Your task to perform on an android device: open app "Microsoft Outlook" (install if not already installed) and go to login screen Image 0: 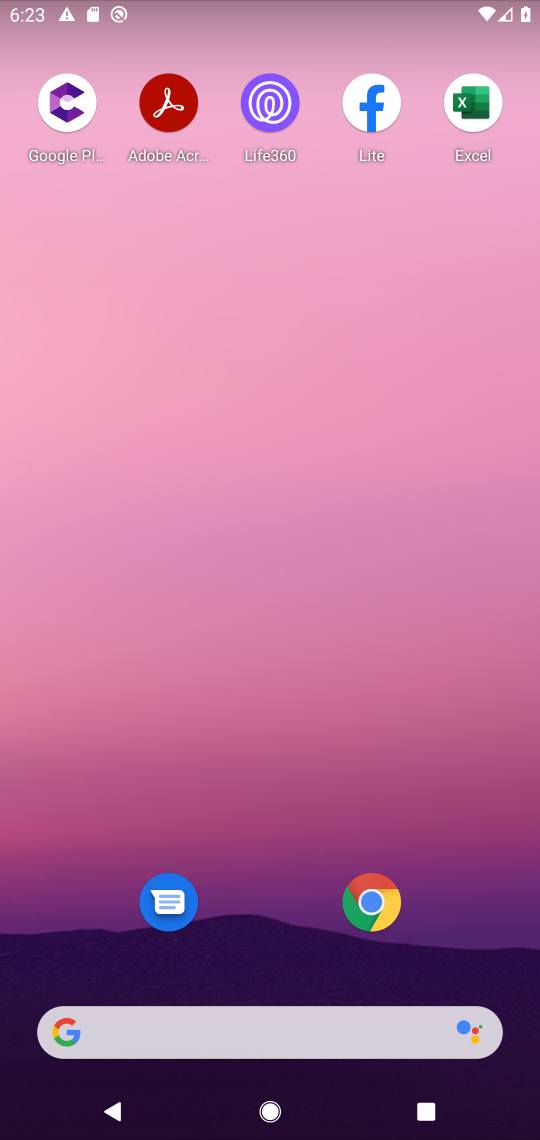
Step 0: drag from (252, 847) to (534, 1088)
Your task to perform on an android device: open app "Microsoft Outlook" (install if not already installed) and go to login screen Image 1: 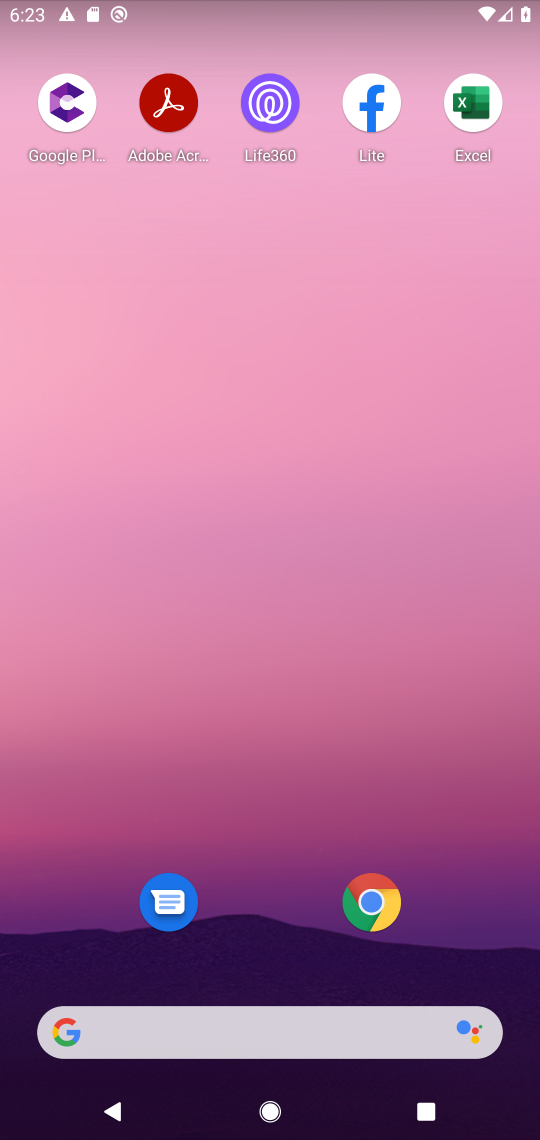
Step 1: drag from (211, 112) to (211, 49)
Your task to perform on an android device: open app "Microsoft Outlook" (install if not already installed) and go to login screen Image 2: 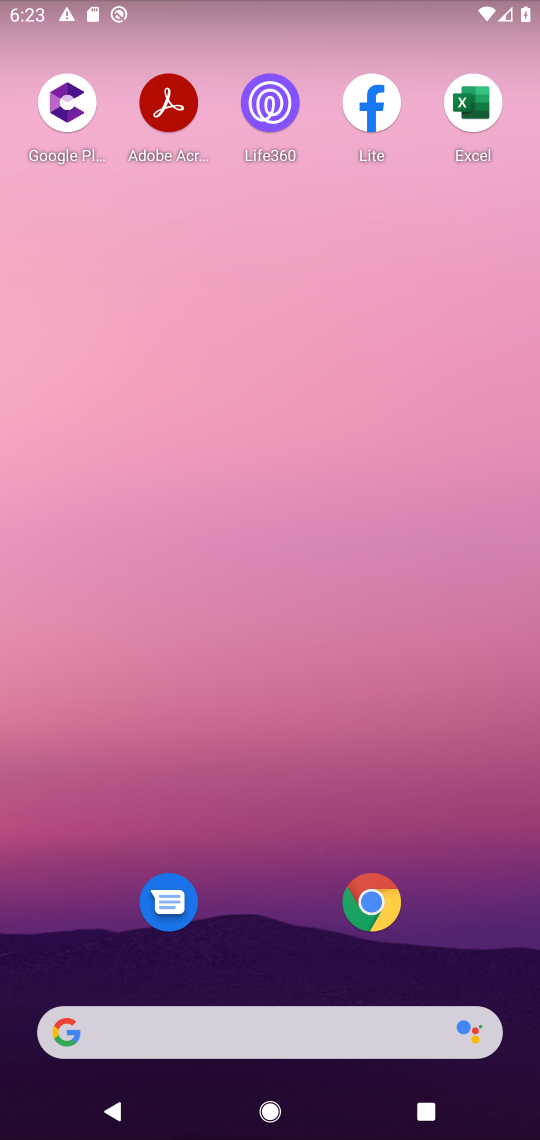
Step 2: drag from (189, 159) to (109, 14)
Your task to perform on an android device: open app "Microsoft Outlook" (install if not already installed) and go to login screen Image 3: 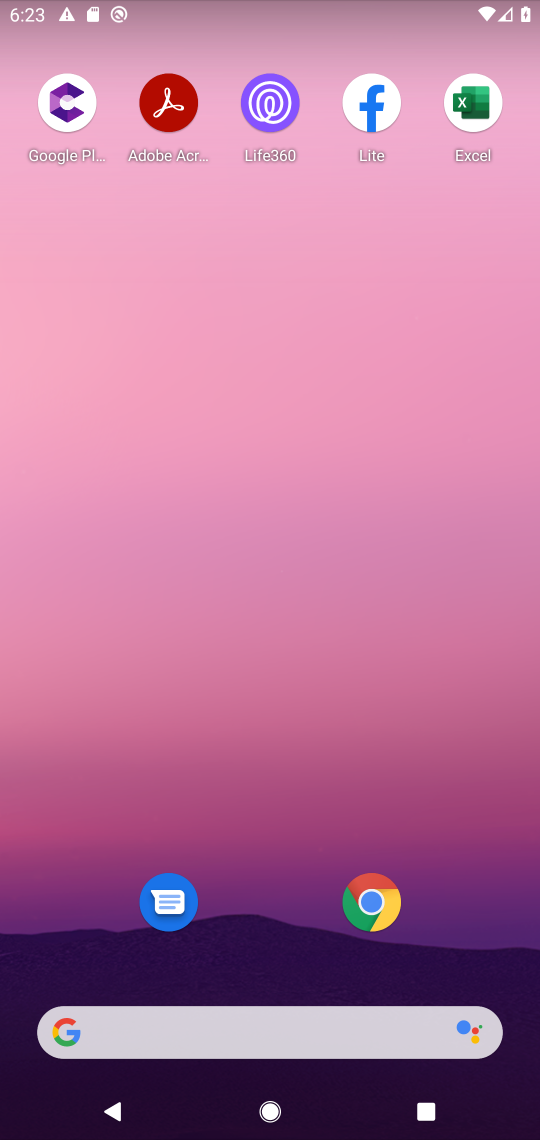
Step 3: drag from (281, 884) to (237, 45)
Your task to perform on an android device: open app "Microsoft Outlook" (install if not already installed) and go to login screen Image 4: 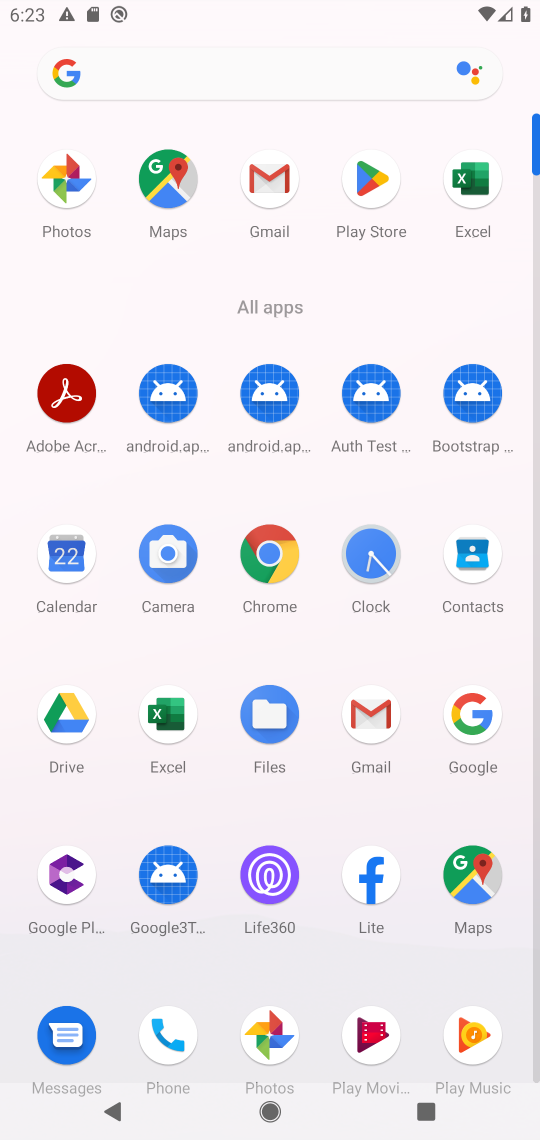
Step 4: click (367, 236)
Your task to perform on an android device: open app "Microsoft Outlook" (install if not already installed) and go to login screen Image 5: 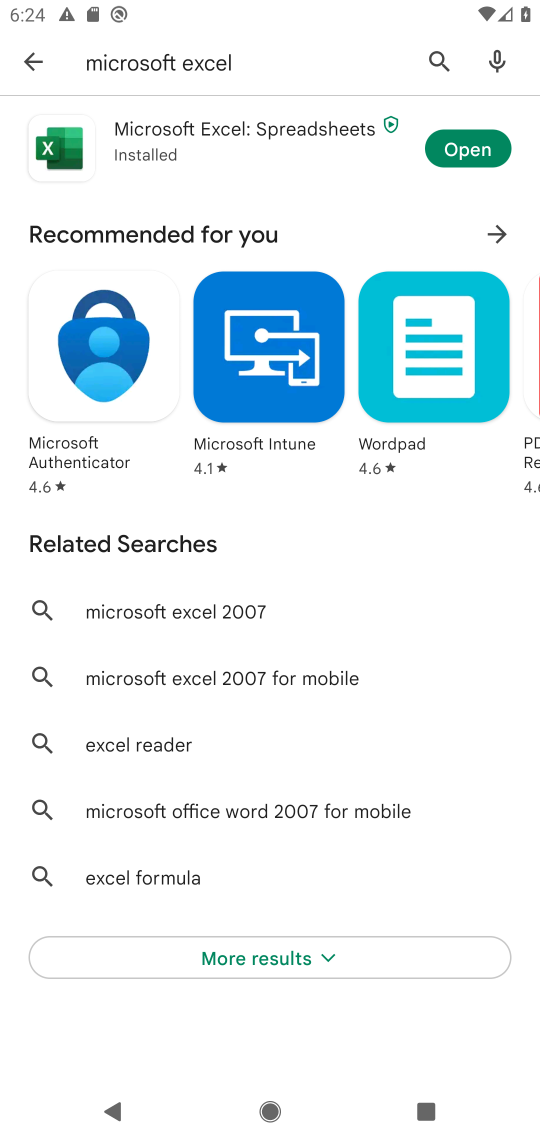
Step 5: click (29, 61)
Your task to perform on an android device: open app "Microsoft Outlook" (install if not already installed) and go to login screen Image 6: 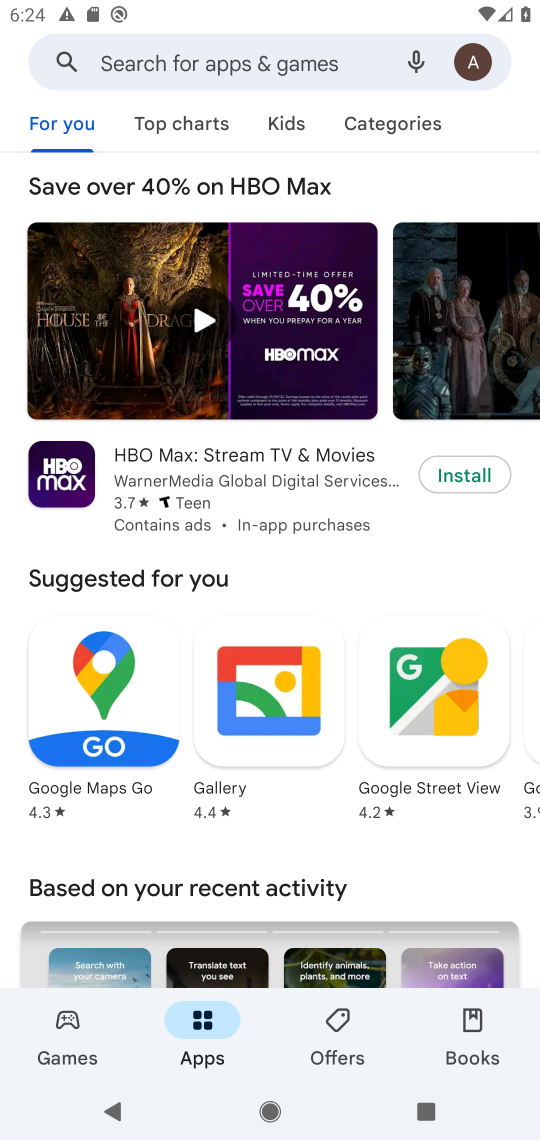
Step 6: click (211, 52)
Your task to perform on an android device: open app "Microsoft Outlook" (install if not already installed) and go to login screen Image 7: 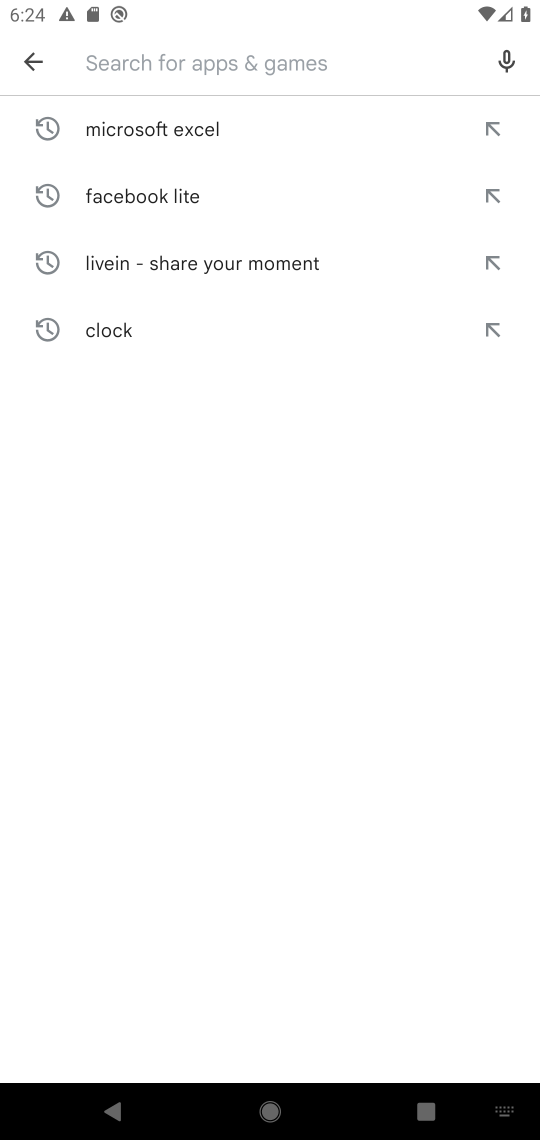
Step 7: type "Microsoft Outlook"
Your task to perform on an android device: open app "Microsoft Outlook" (install if not already installed) and go to login screen Image 8: 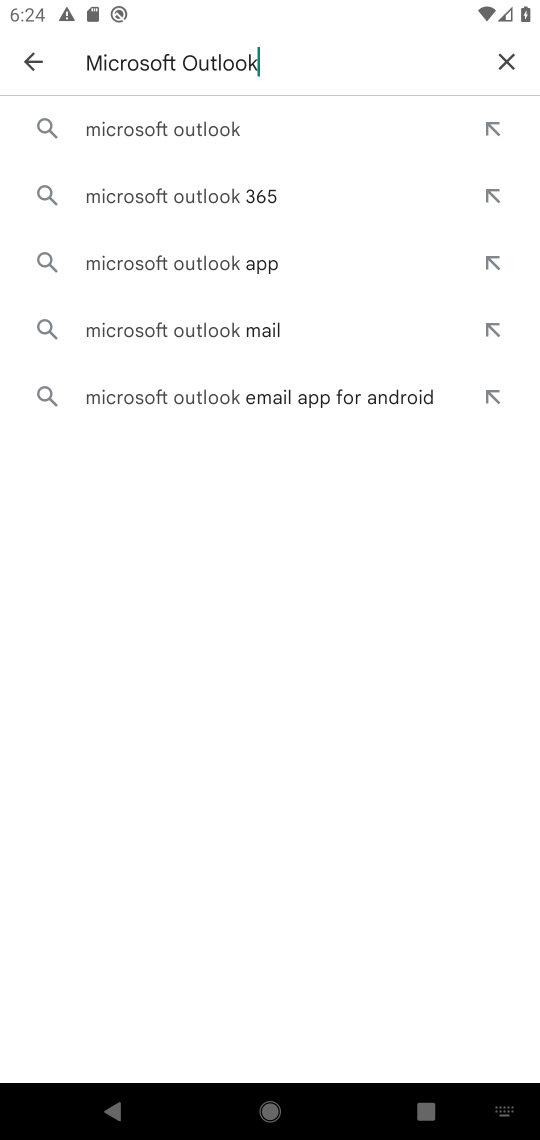
Step 8: click (150, 134)
Your task to perform on an android device: open app "Microsoft Outlook" (install if not already installed) and go to login screen Image 9: 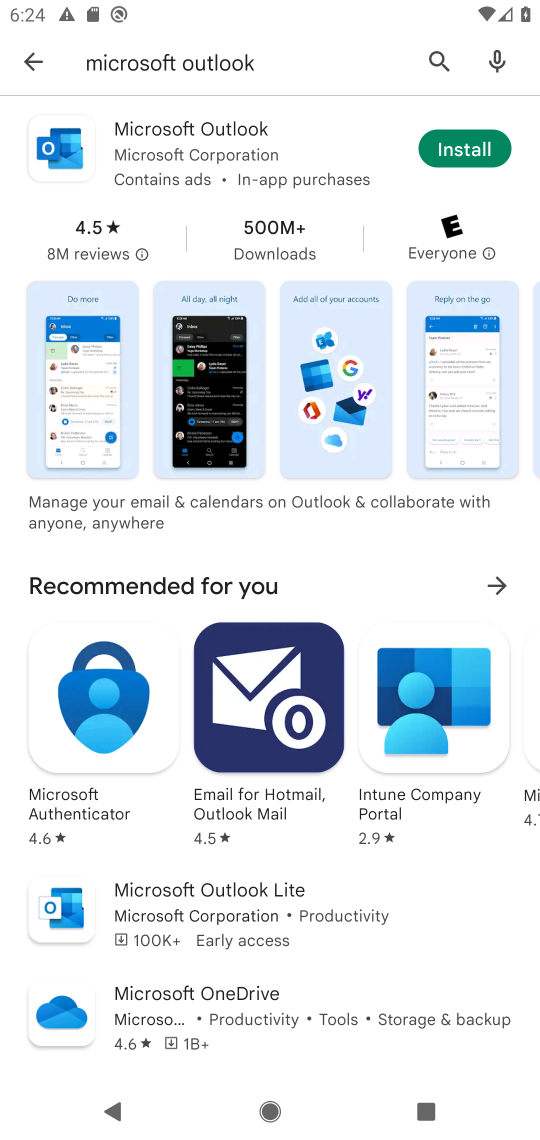
Step 9: click (462, 154)
Your task to perform on an android device: open app "Microsoft Outlook" (install if not already installed) and go to login screen Image 10: 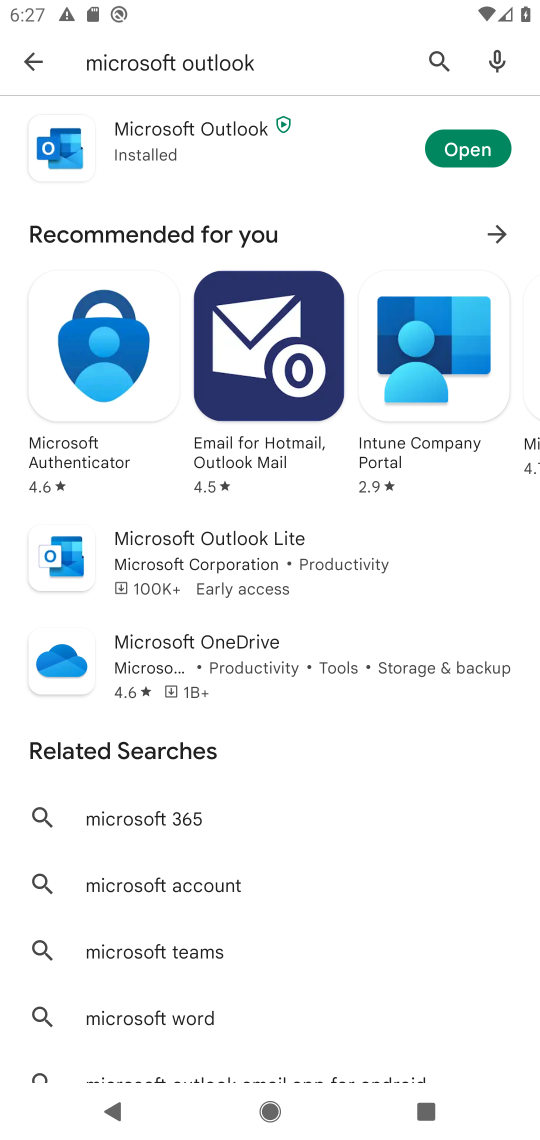
Step 10: click (467, 146)
Your task to perform on an android device: open app "Microsoft Outlook" (install if not already installed) and go to login screen Image 11: 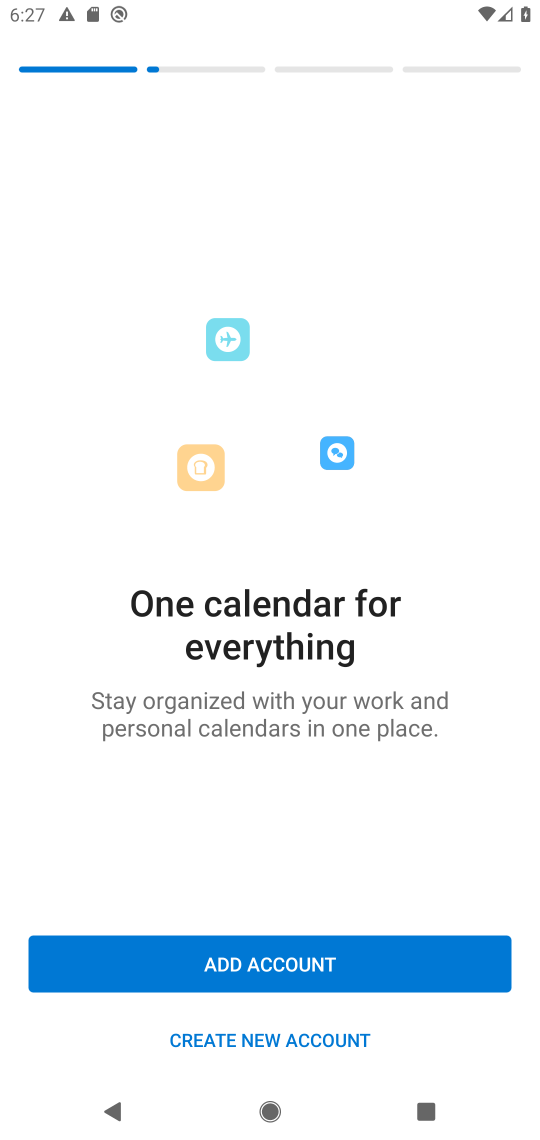
Step 11: task complete